Your task to perform on an android device: Open calendar and show me the fourth week of next month Image 0: 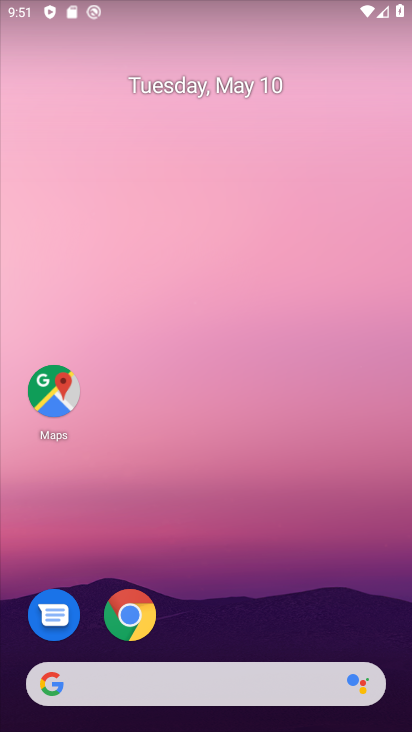
Step 0: press home button
Your task to perform on an android device: Open calendar and show me the fourth week of next month Image 1: 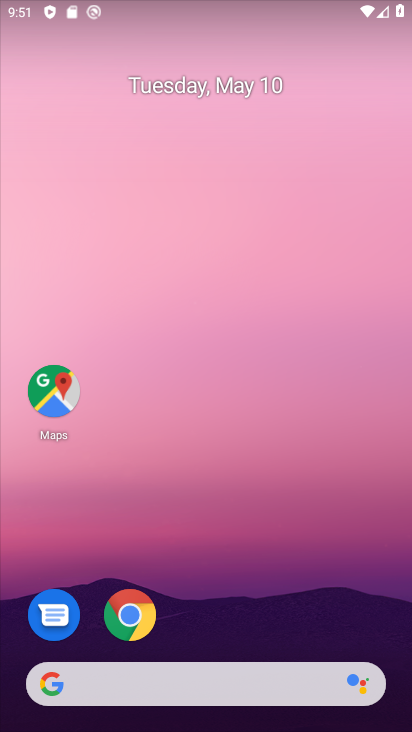
Step 1: drag from (192, 638) to (244, 159)
Your task to perform on an android device: Open calendar and show me the fourth week of next month Image 2: 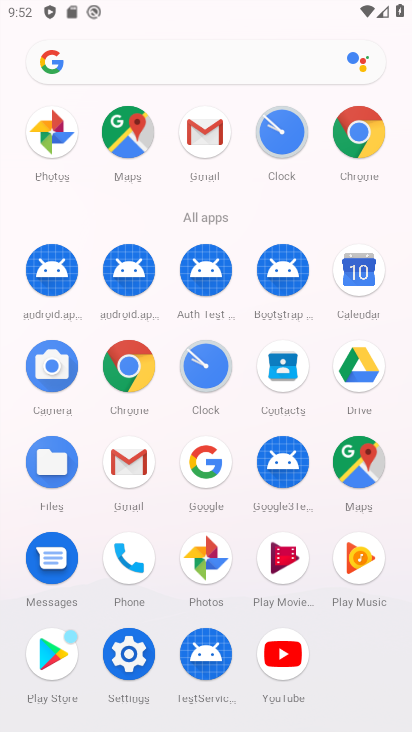
Step 2: click (360, 264)
Your task to perform on an android device: Open calendar and show me the fourth week of next month Image 3: 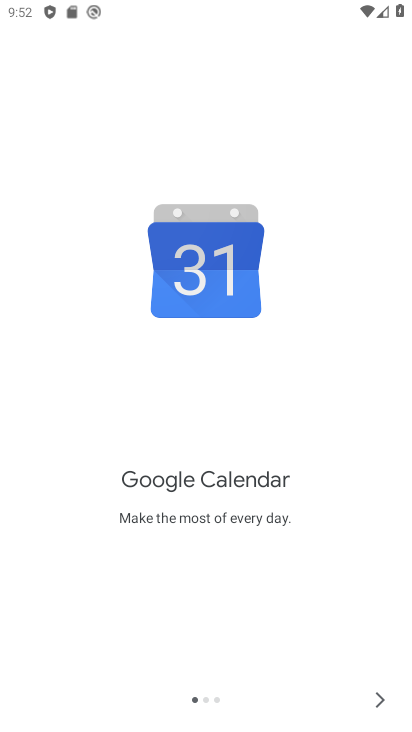
Step 3: click (373, 692)
Your task to perform on an android device: Open calendar and show me the fourth week of next month Image 4: 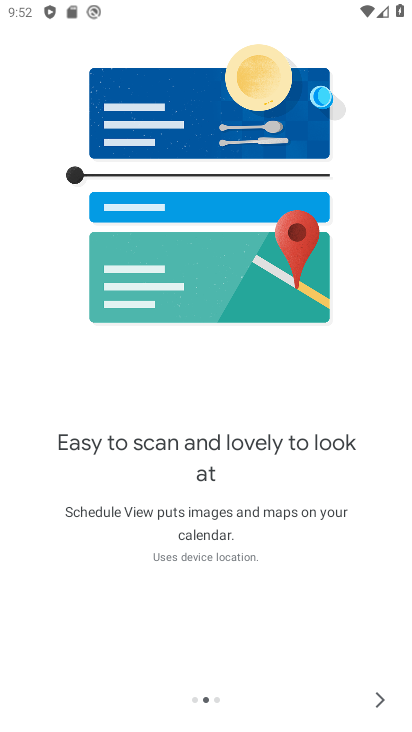
Step 4: click (373, 701)
Your task to perform on an android device: Open calendar and show me the fourth week of next month Image 5: 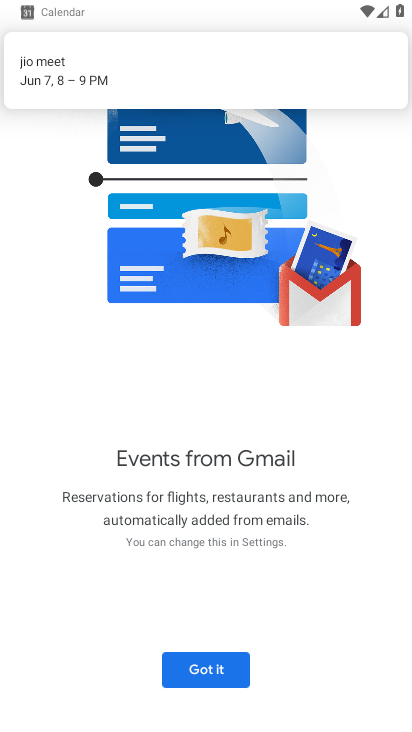
Step 5: click (203, 668)
Your task to perform on an android device: Open calendar and show me the fourth week of next month Image 6: 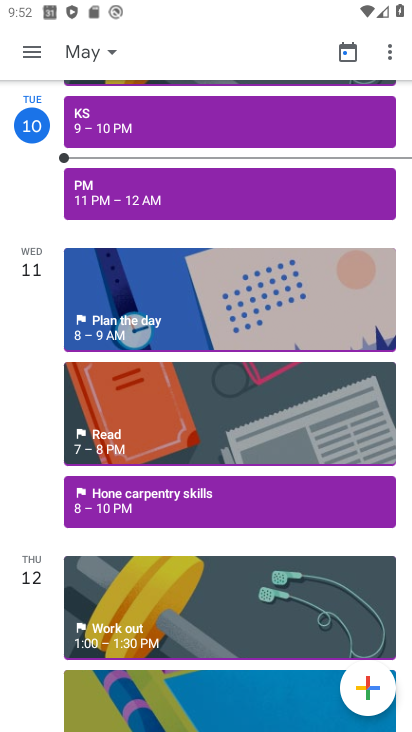
Step 6: click (32, 44)
Your task to perform on an android device: Open calendar and show me the fourth week of next month Image 7: 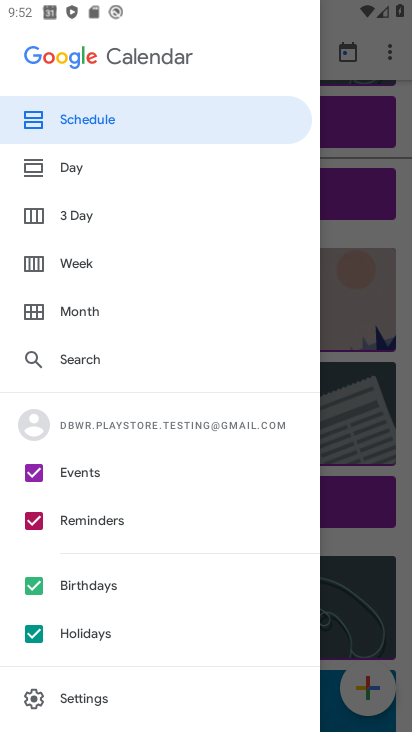
Step 7: click (85, 263)
Your task to perform on an android device: Open calendar and show me the fourth week of next month Image 8: 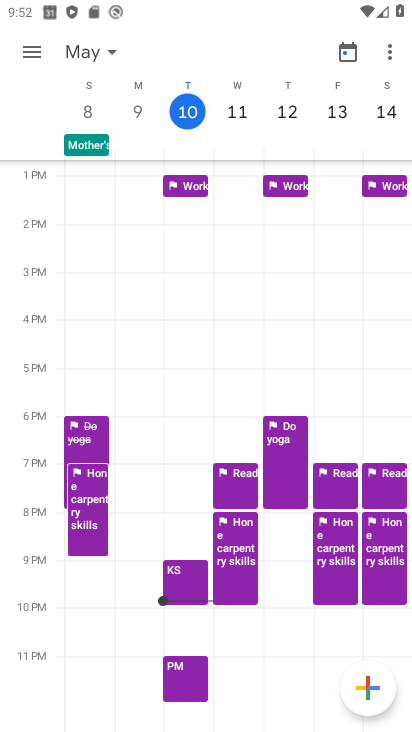
Step 8: drag from (384, 104) to (9, 115)
Your task to perform on an android device: Open calendar and show me the fourth week of next month Image 9: 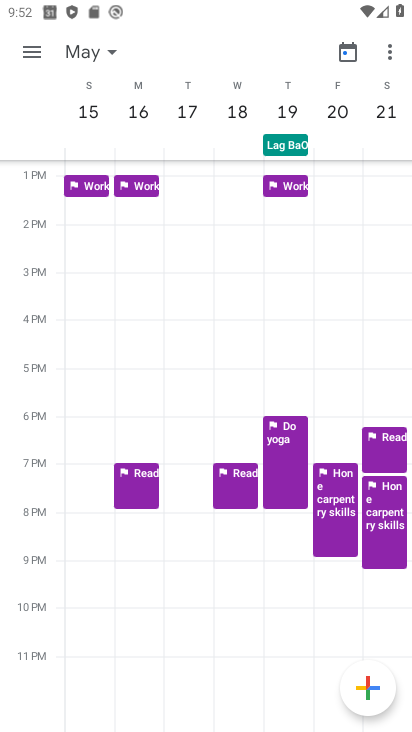
Step 9: drag from (374, 106) to (9, 79)
Your task to perform on an android device: Open calendar and show me the fourth week of next month Image 10: 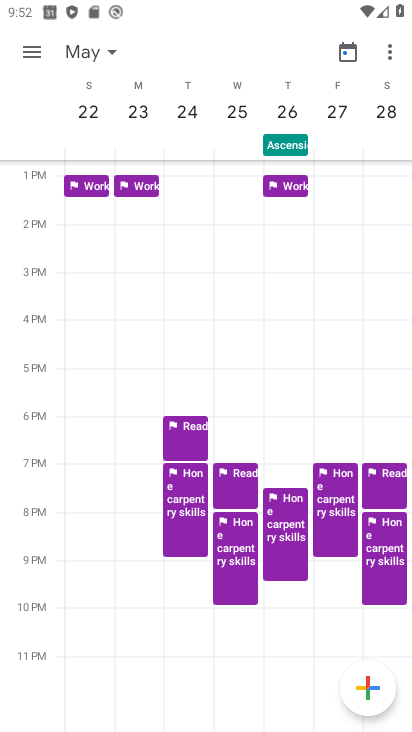
Step 10: drag from (376, 110) to (53, 235)
Your task to perform on an android device: Open calendar and show me the fourth week of next month Image 11: 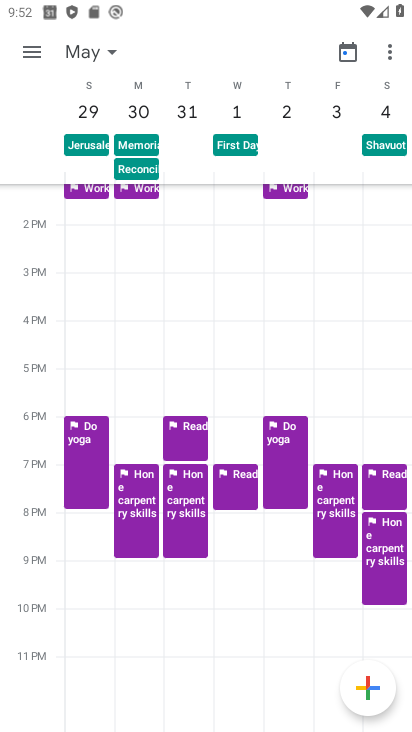
Step 11: drag from (382, 114) to (82, 108)
Your task to perform on an android device: Open calendar and show me the fourth week of next month Image 12: 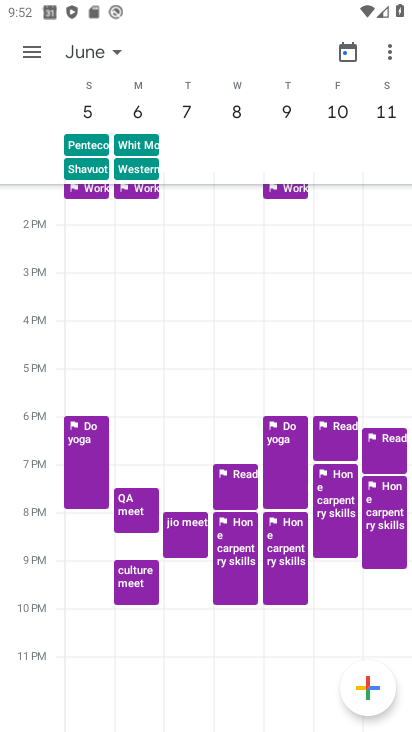
Step 12: drag from (381, 106) to (97, 112)
Your task to perform on an android device: Open calendar and show me the fourth week of next month Image 13: 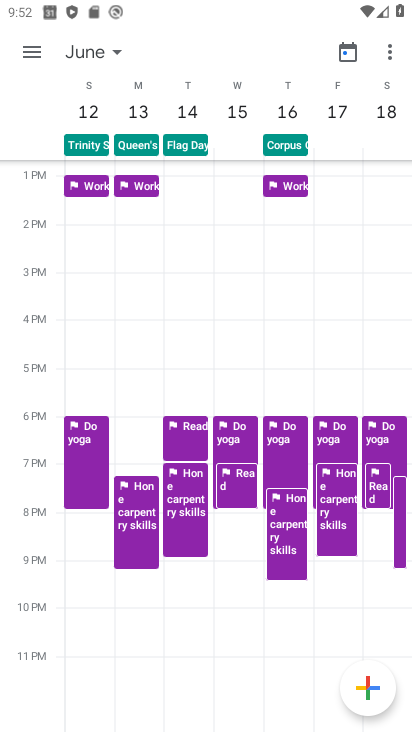
Step 13: drag from (356, 108) to (71, 115)
Your task to perform on an android device: Open calendar and show me the fourth week of next month Image 14: 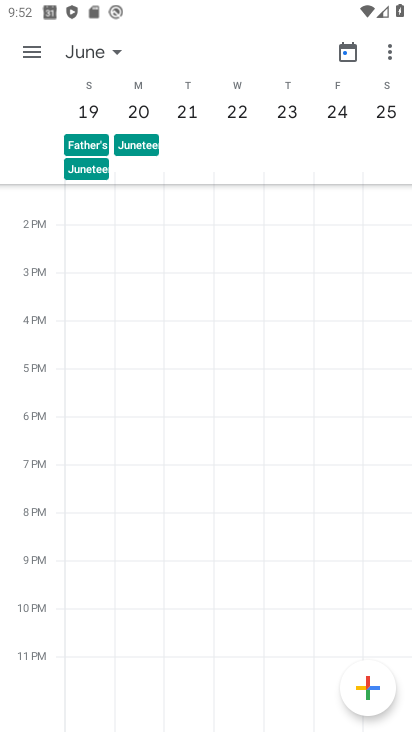
Step 14: click (90, 108)
Your task to perform on an android device: Open calendar and show me the fourth week of next month Image 15: 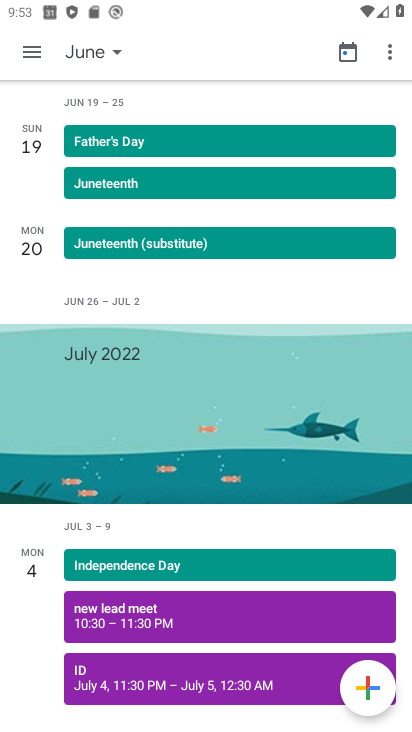
Step 15: task complete